Your task to perform on an android device: Find coffee shops on Maps Image 0: 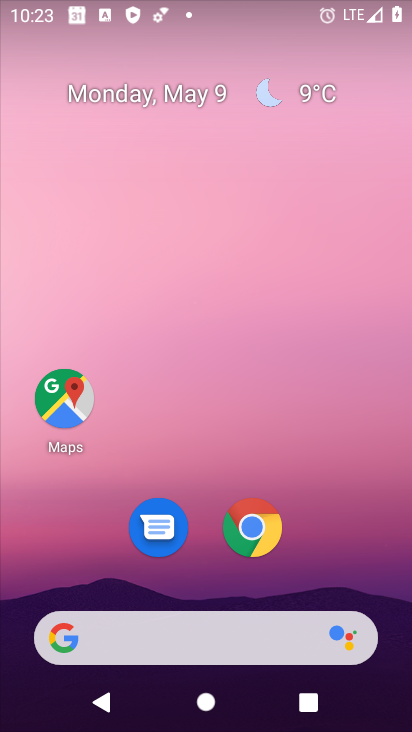
Step 0: click (61, 394)
Your task to perform on an android device: Find coffee shops on Maps Image 1: 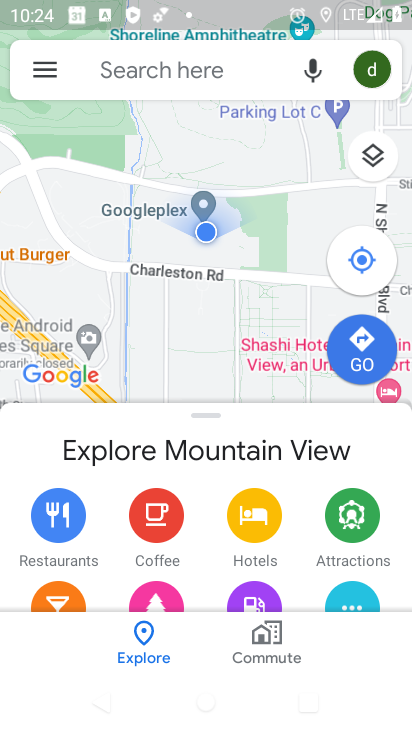
Step 1: click (119, 68)
Your task to perform on an android device: Find coffee shops on Maps Image 2: 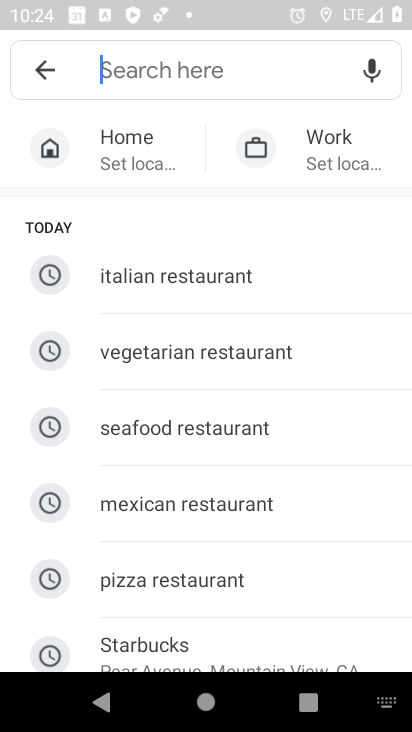
Step 2: type "coffee"
Your task to perform on an android device: Find coffee shops on Maps Image 3: 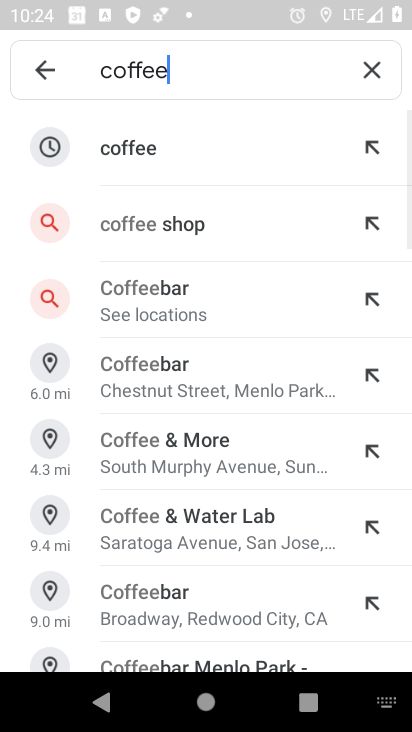
Step 3: click (140, 136)
Your task to perform on an android device: Find coffee shops on Maps Image 4: 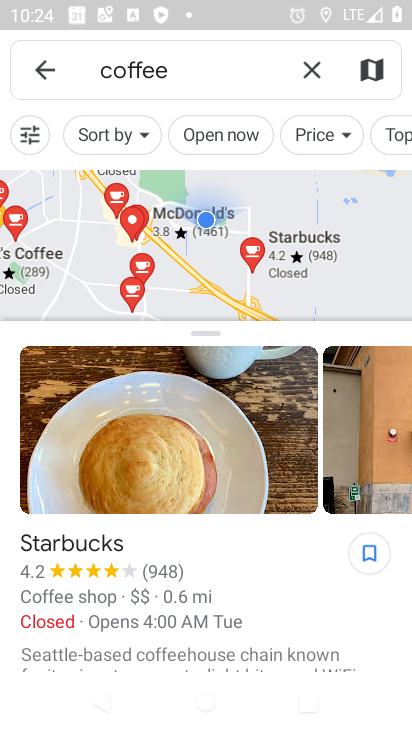
Step 4: task complete